Your task to perform on an android device: change the clock style Image 0: 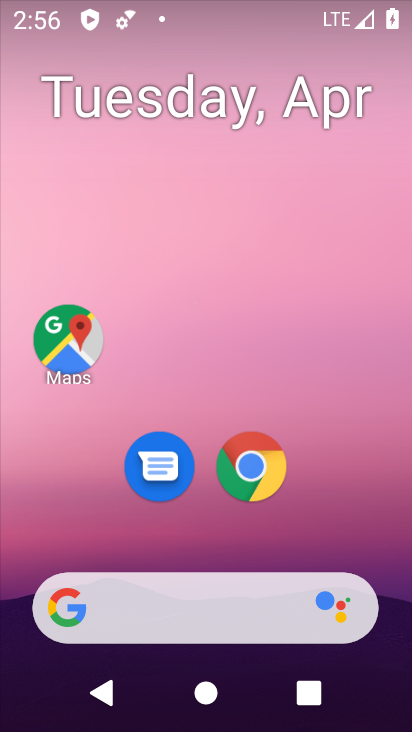
Step 0: drag from (230, 555) to (184, 0)
Your task to perform on an android device: change the clock style Image 1: 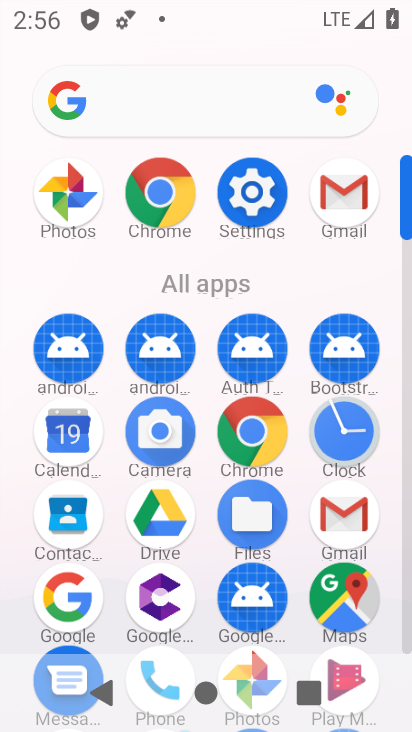
Step 1: click (337, 403)
Your task to perform on an android device: change the clock style Image 2: 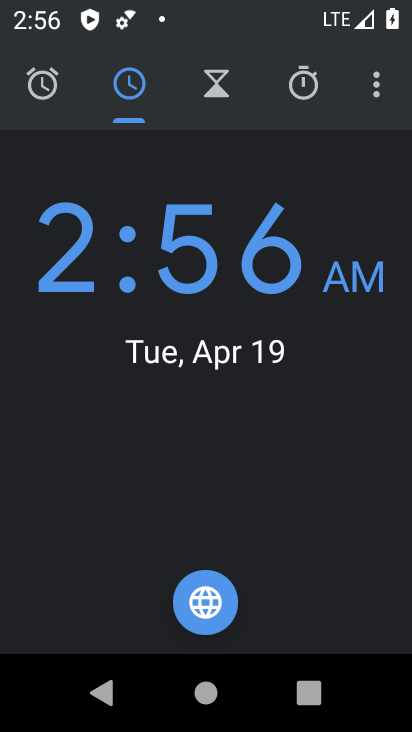
Step 2: click (373, 88)
Your task to perform on an android device: change the clock style Image 3: 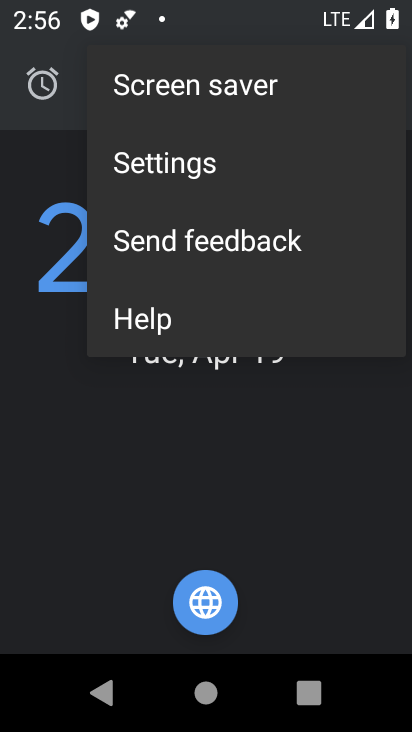
Step 3: click (179, 163)
Your task to perform on an android device: change the clock style Image 4: 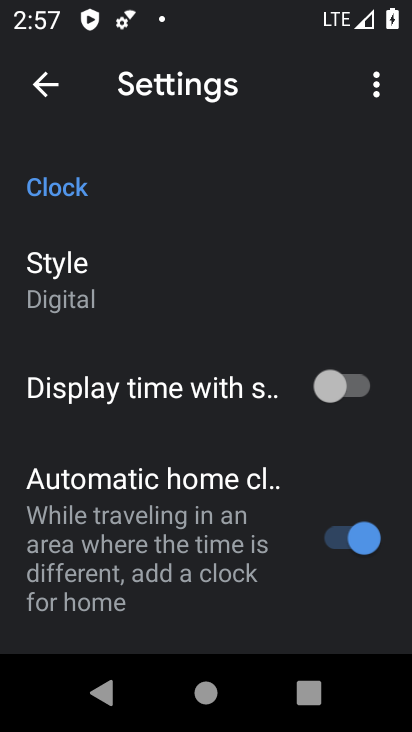
Step 4: click (198, 283)
Your task to perform on an android device: change the clock style Image 5: 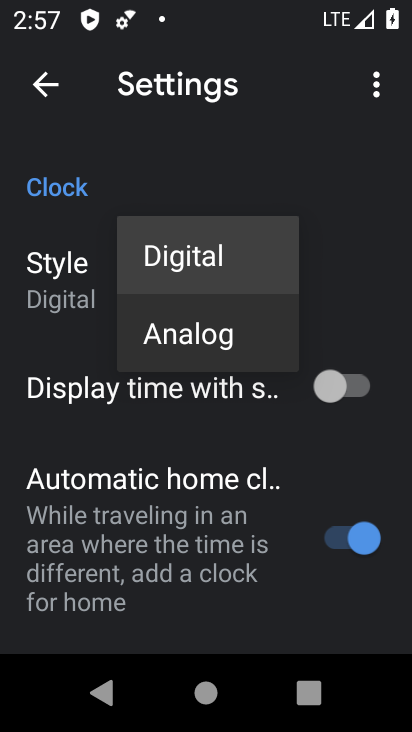
Step 5: click (179, 325)
Your task to perform on an android device: change the clock style Image 6: 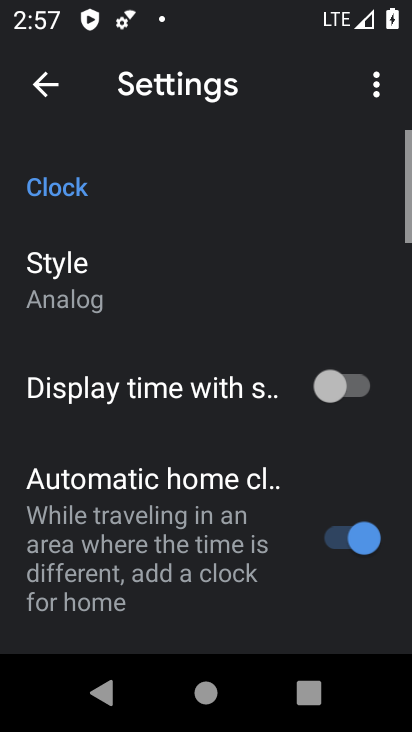
Step 6: task complete